Your task to perform on an android device: change text size in settings app Image 0: 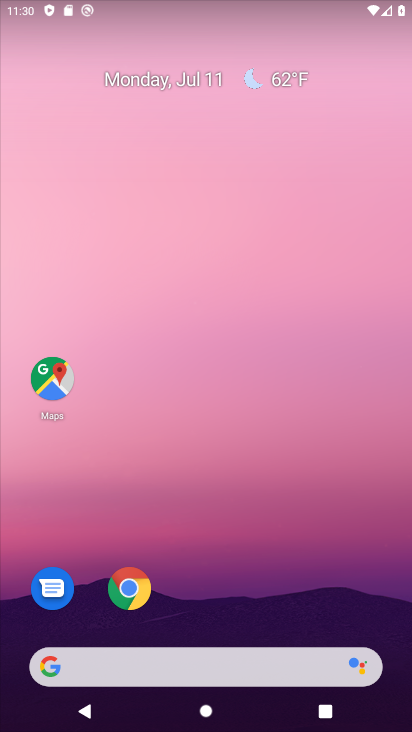
Step 0: drag from (192, 565) to (147, 31)
Your task to perform on an android device: change text size in settings app Image 1: 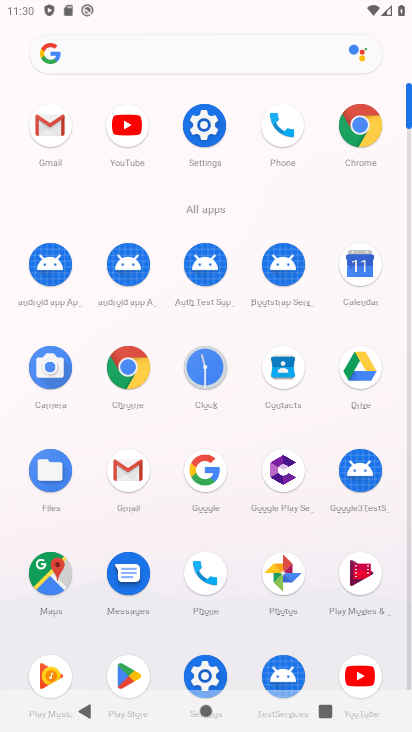
Step 1: click (203, 133)
Your task to perform on an android device: change text size in settings app Image 2: 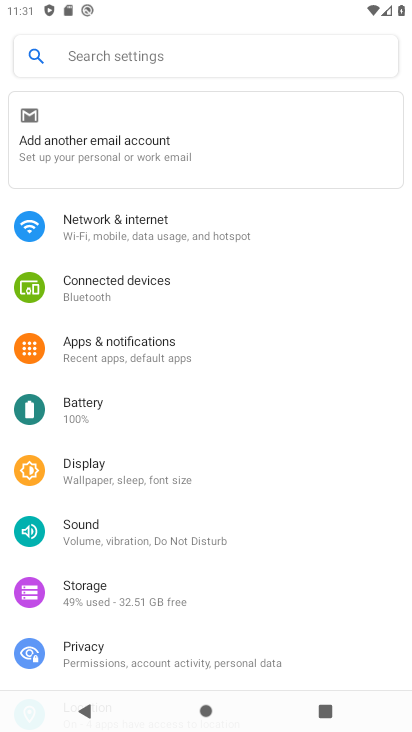
Step 2: drag from (107, 572) to (192, 180)
Your task to perform on an android device: change text size in settings app Image 3: 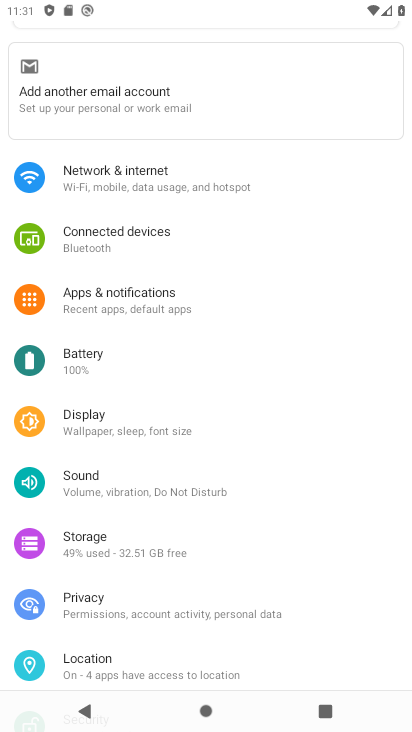
Step 3: click (74, 429)
Your task to perform on an android device: change text size in settings app Image 4: 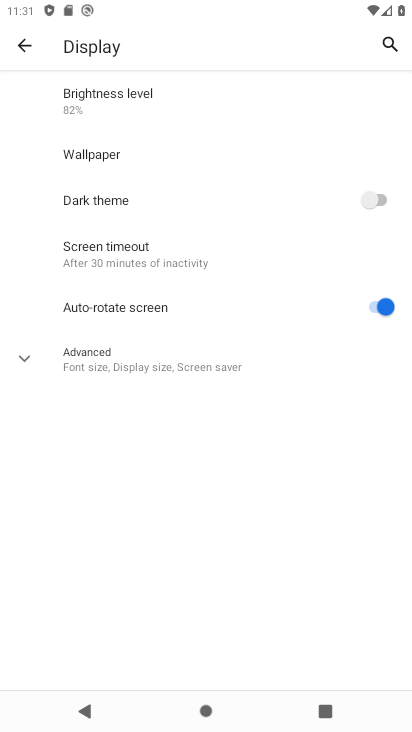
Step 4: click (147, 366)
Your task to perform on an android device: change text size in settings app Image 5: 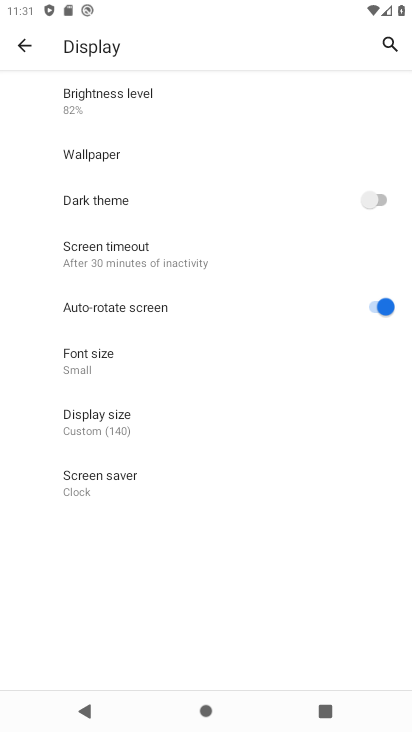
Step 5: click (112, 356)
Your task to perform on an android device: change text size in settings app Image 6: 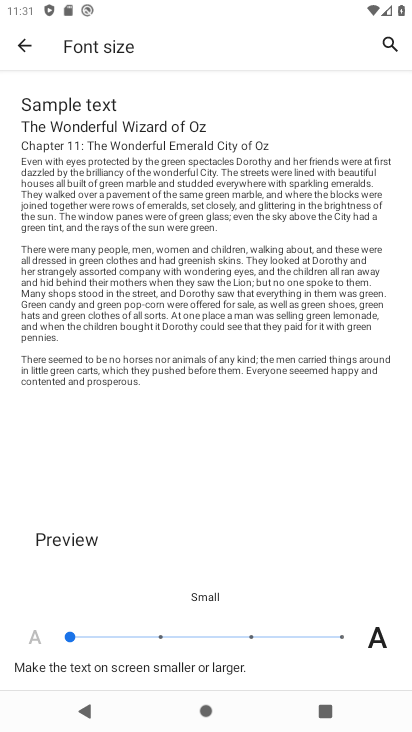
Step 6: click (153, 641)
Your task to perform on an android device: change text size in settings app Image 7: 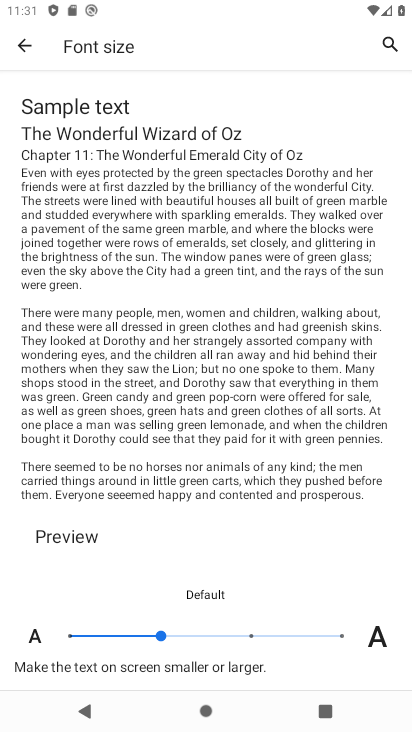
Step 7: task complete